Your task to perform on an android device: toggle notifications settings in the gmail app Image 0: 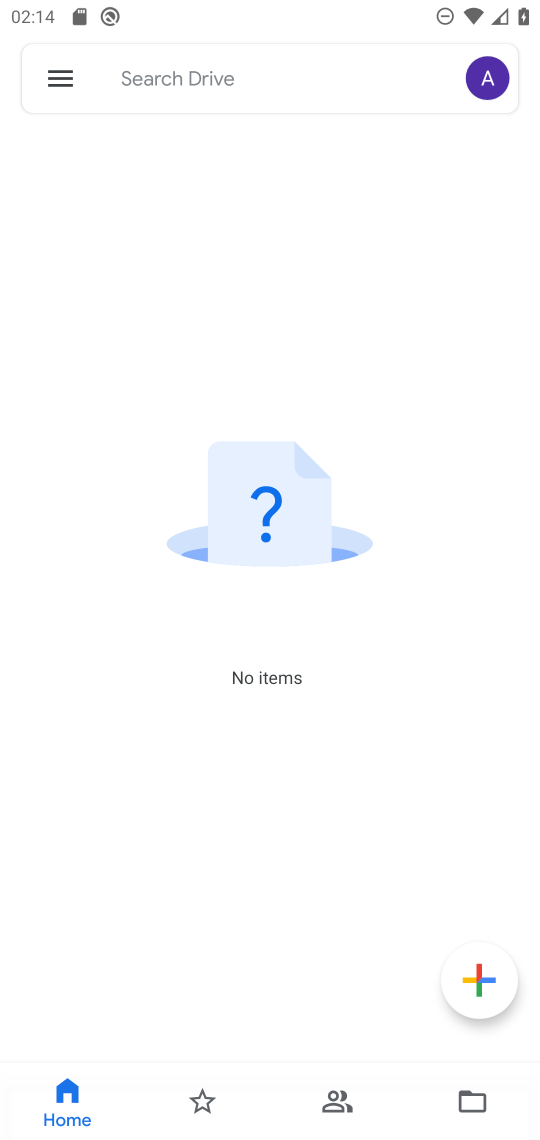
Step 0: press back button
Your task to perform on an android device: toggle notifications settings in the gmail app Image 1: 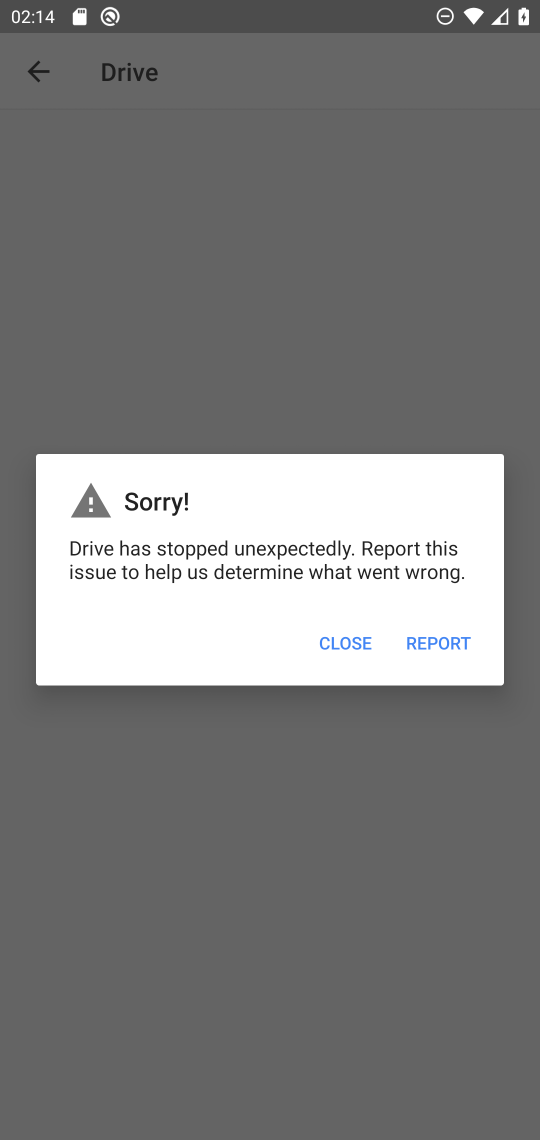
Step 1: press home button
Your task to perform on an android device: toggle notifications settings in the gmail app Image 2: 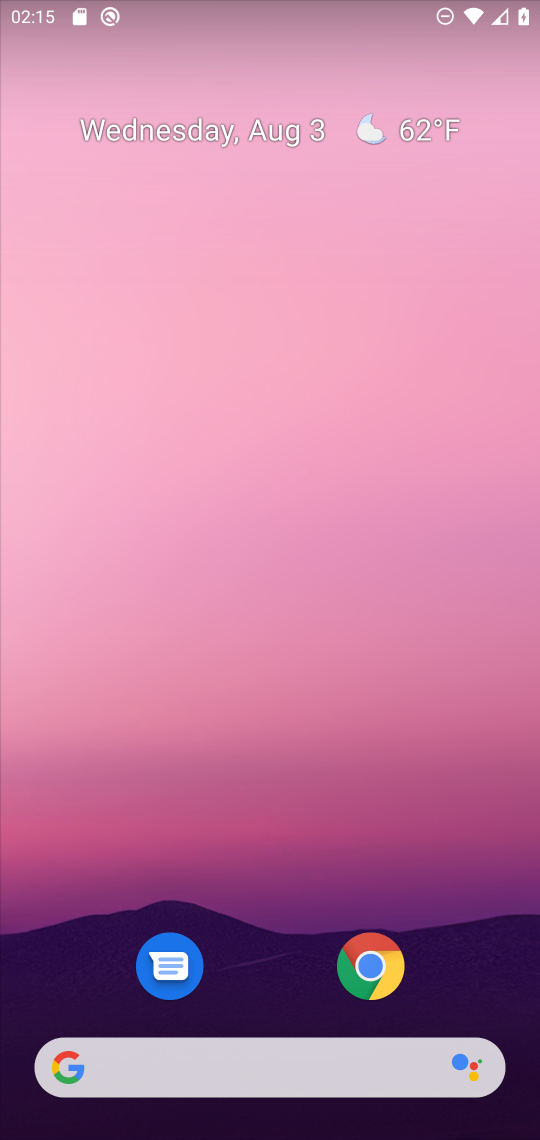
Step 2: drag from (253, 990) to (276, 432)
Your task to perform on an android device: toggle notifications settings in the gmail app Image 3: 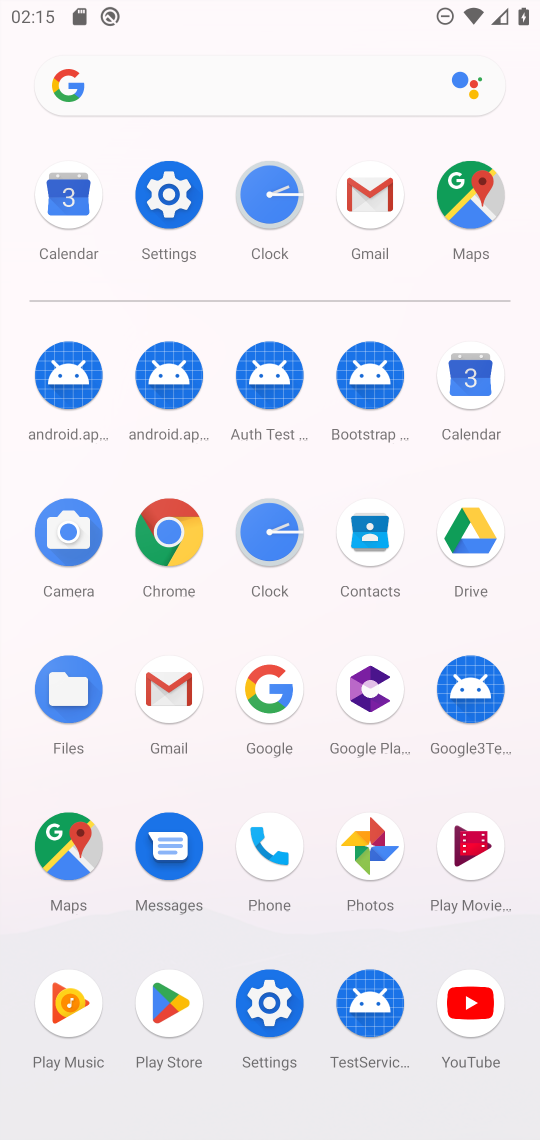
Step 3: click (368, 221)
Your task to perform on an android device: toggle notifications settings in the gmail app Image 4: 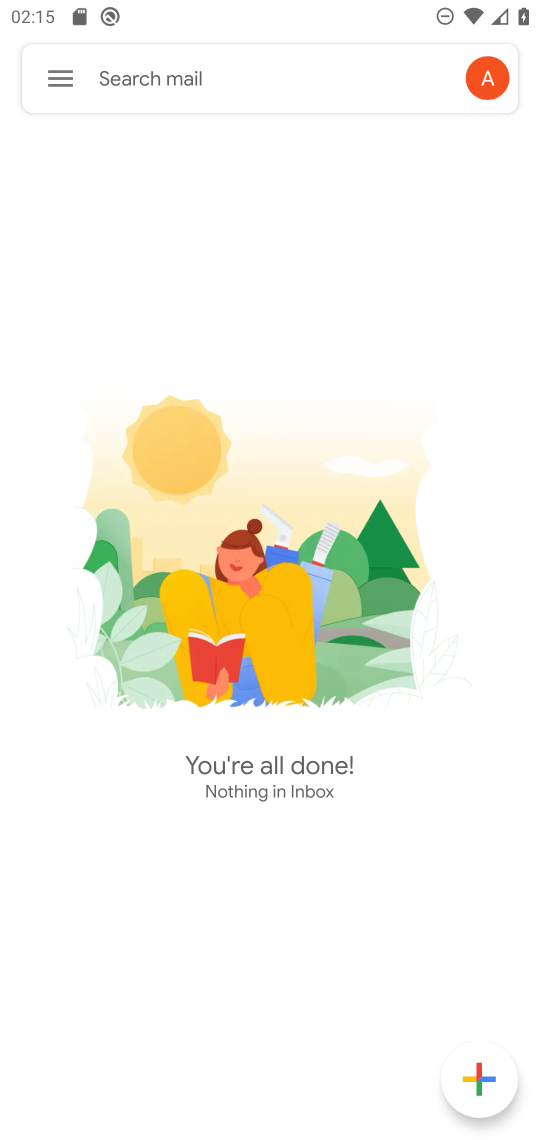
Step 4: click (61, 78)
Your task to perform on an android device: toggle notifications settings in the gmail app Image 5: 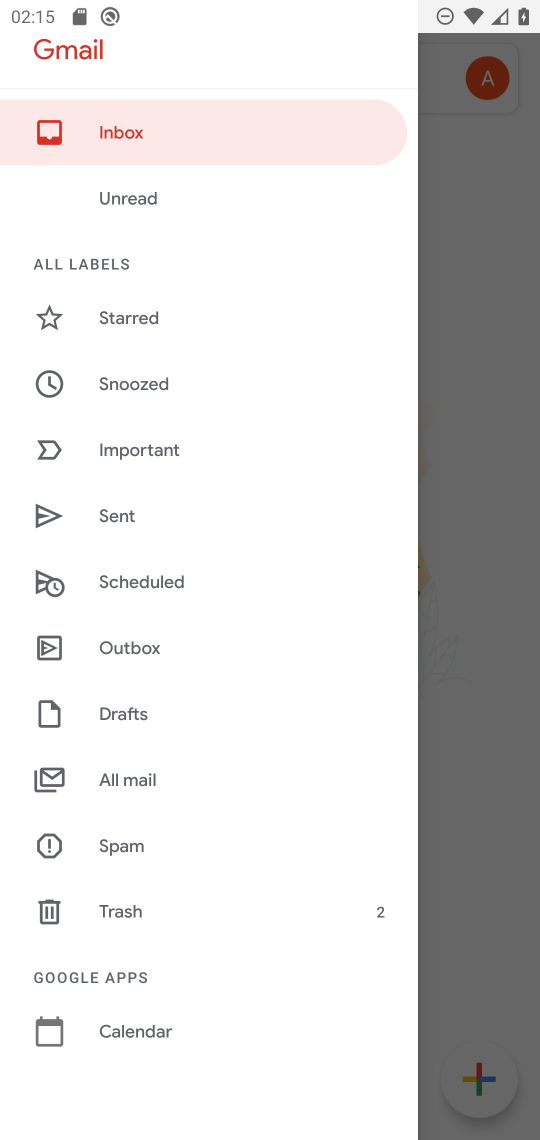
Step 5: drag from (180, 782) to (167, 450)
Your task to perform on an android device: toggle notifications settings in the gmail app Image 6: 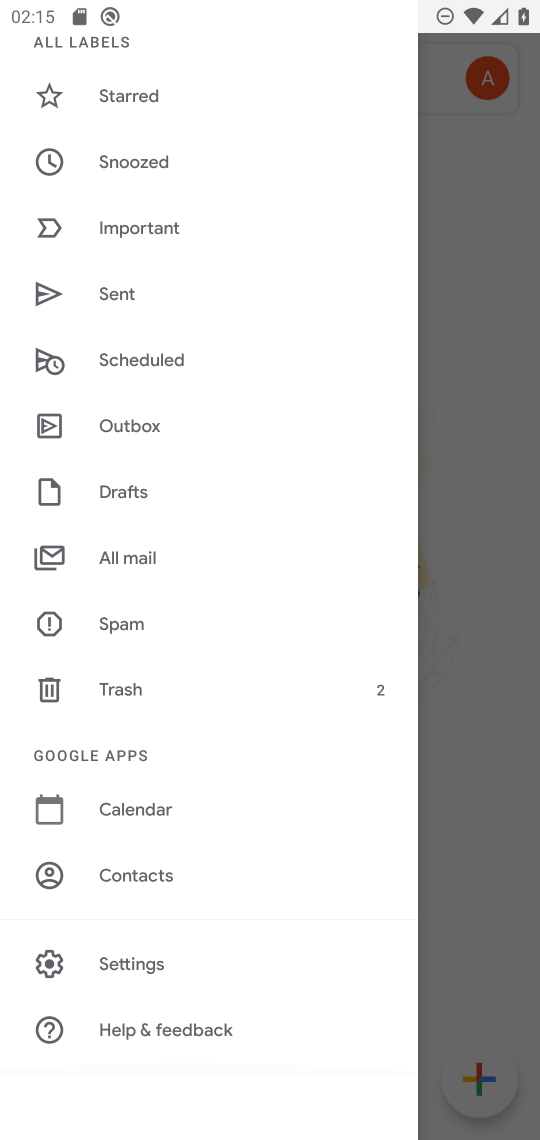
Step 6: click (189, 962)
Your task to perform on an android device: toggle notifications settings in the gmail app Image 7: 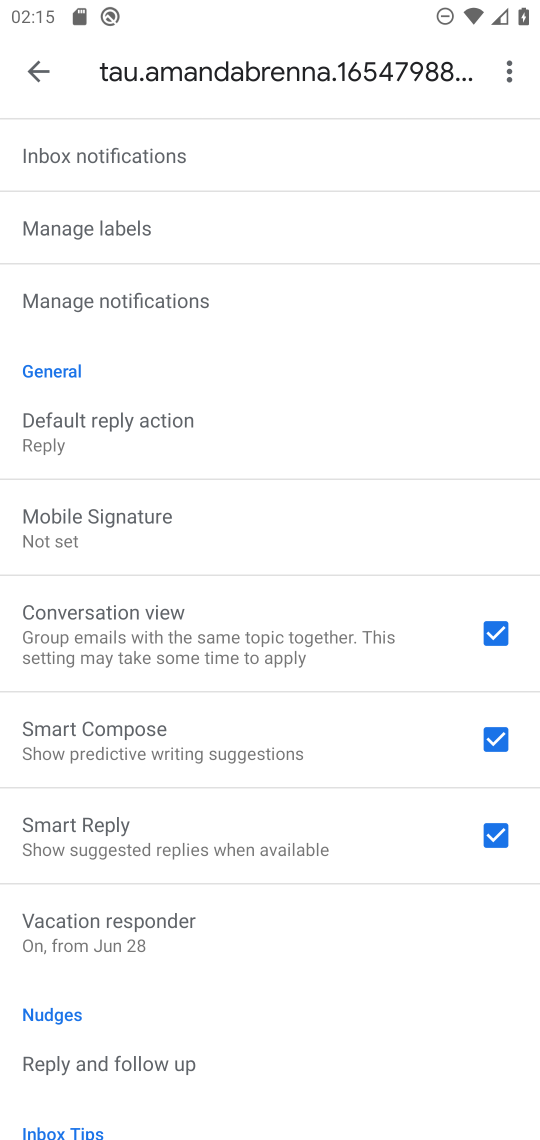
Step 7: click (219, 306)
Your task to perform on an android device: toggle notifications settings in the gmail app Image 8: 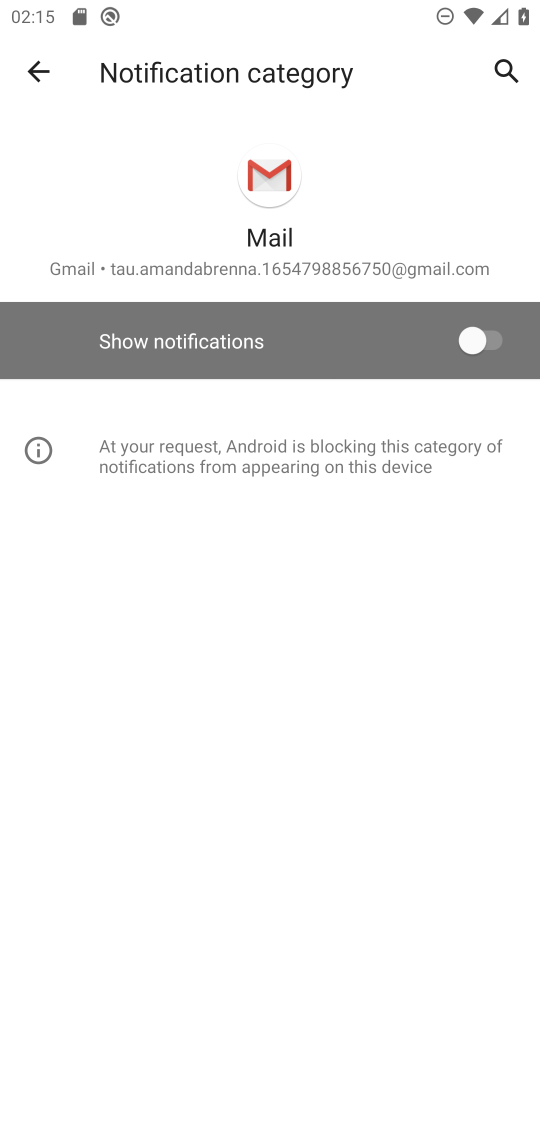
Step 8: click (497, 345)
Your task to perform on an android device: toggle notifications settings in the gmail app Image 9: 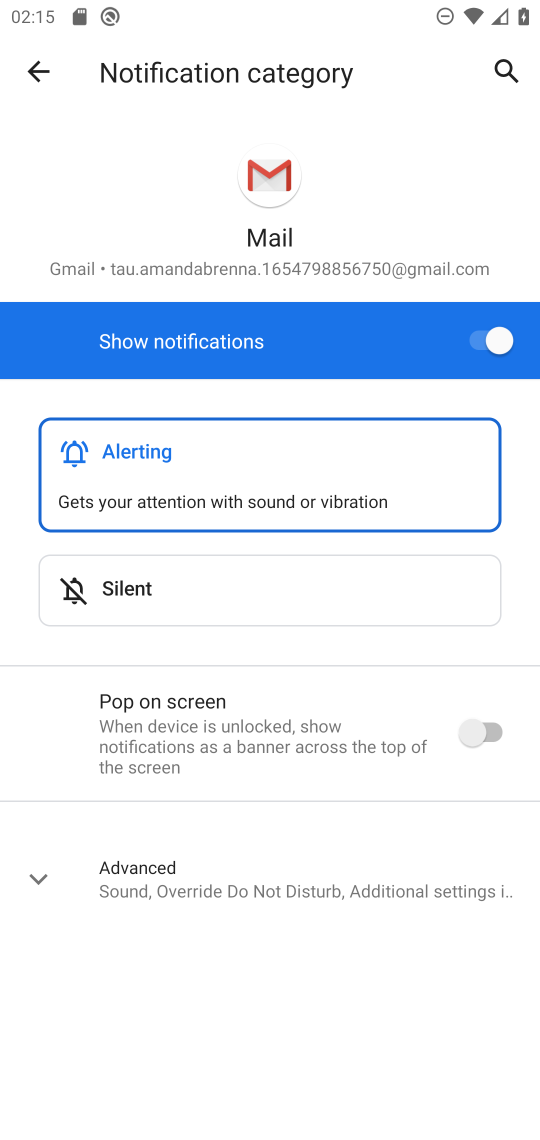
Step 9: click (482, 337)
Your task to perform on an android device: toggle notifications settings in the gmail app Image 10: 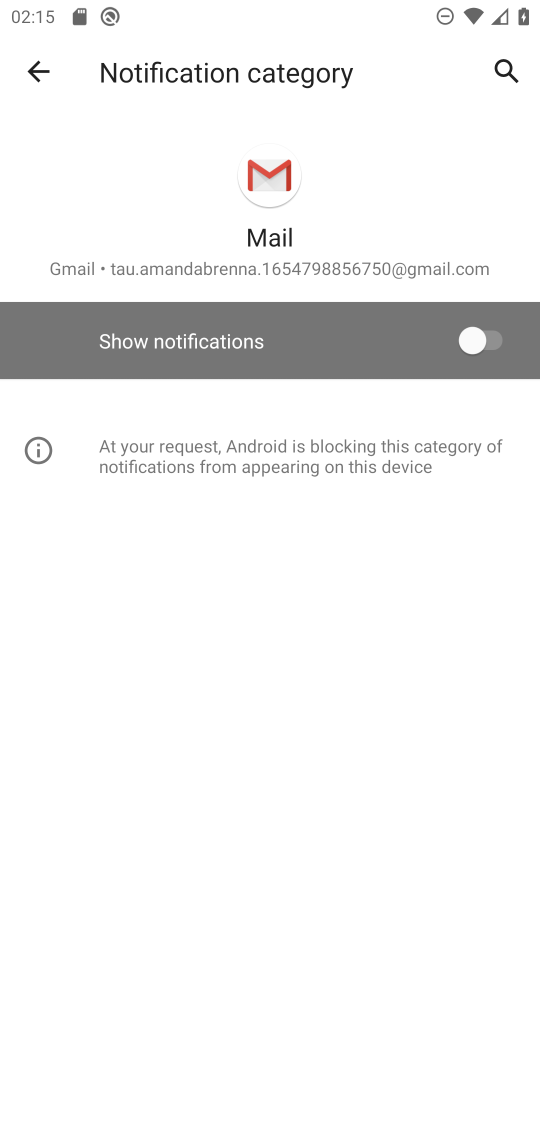
Step 10: task complete